Your task to perform on an android device: Open battery settings Image 0: 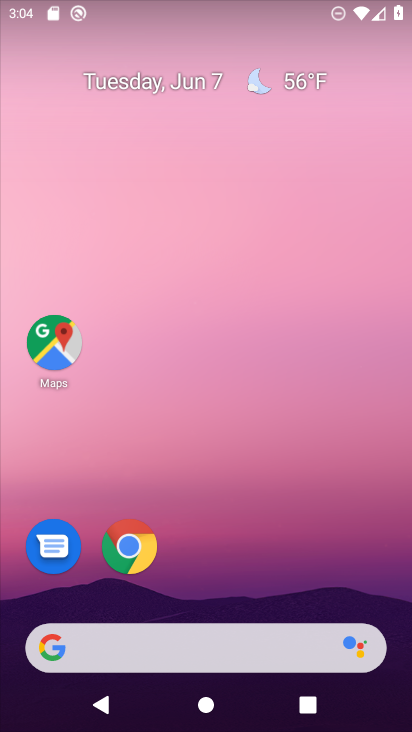
Step 0: drag from (297, 563) to (189, 4)
Your task to perform on an android device: Open battery settings Image 1: 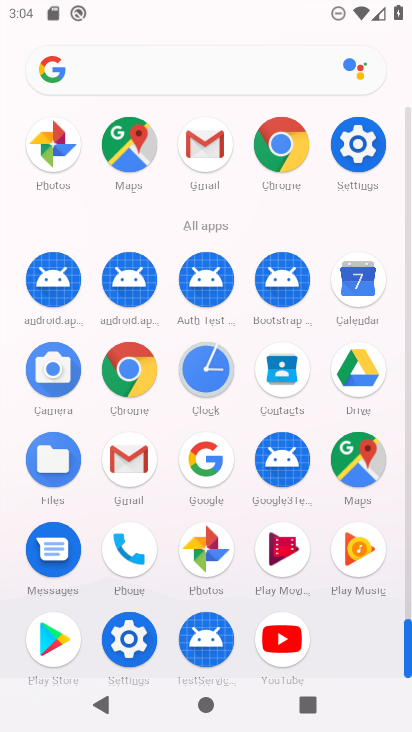
Step 1: click (131, 639)
Your task to perform on an android device: Open battery settings Image 2: 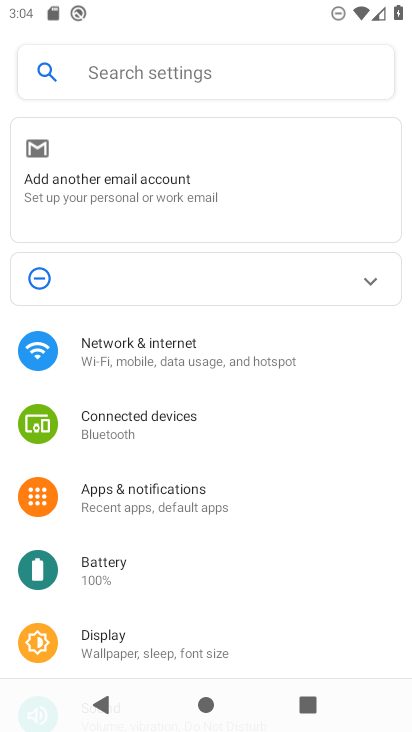
Step 2: click (237, 271)
Your task to perform on an android device: Open battery settings Image 3: 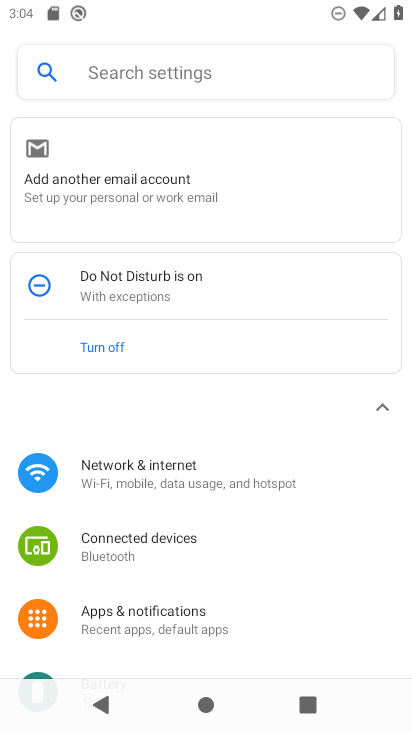
Step 3: drag from (313, 596) to (309, 214)
Your task to perform on an android device: Open battery settings Image 4: 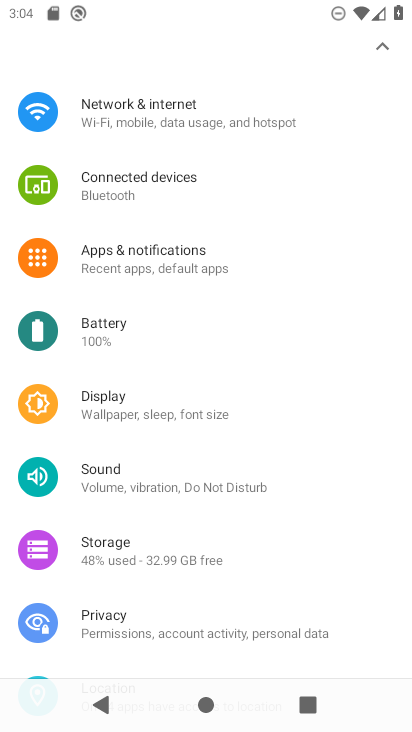
Step 4: click (109, 325)
Your task to perform on an android device: Open battery settings Image 5: 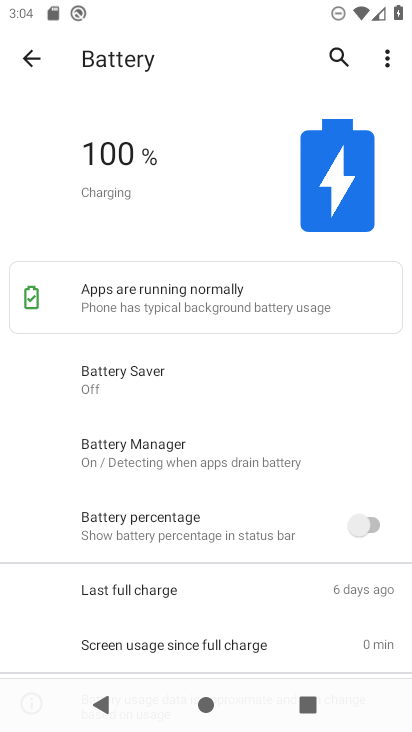
Step 5: task complete